Your task to perform on an android device: change notification settings in the gmail app Image 0: 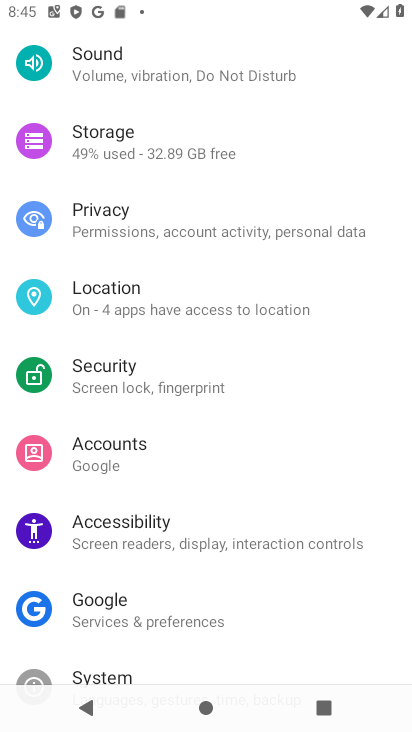
Step 0: press back button
Your task to perform on an android device: change notification settings in the gmail app Image 1: 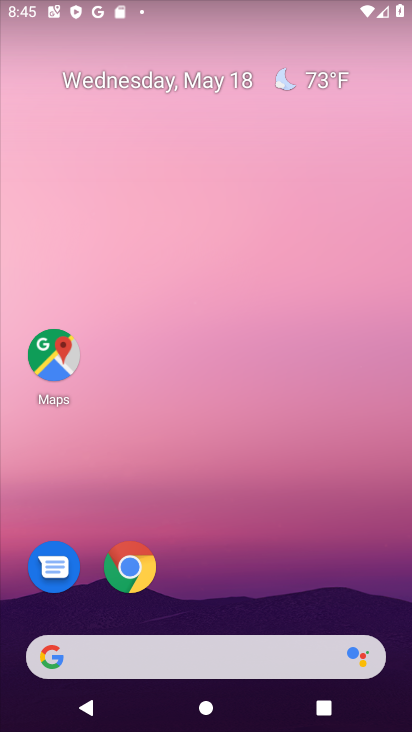
Step 1: drag from (220, 542) to (221, 13)
Your task to perform on an android device: change notification settings in the gmail app Image 2: 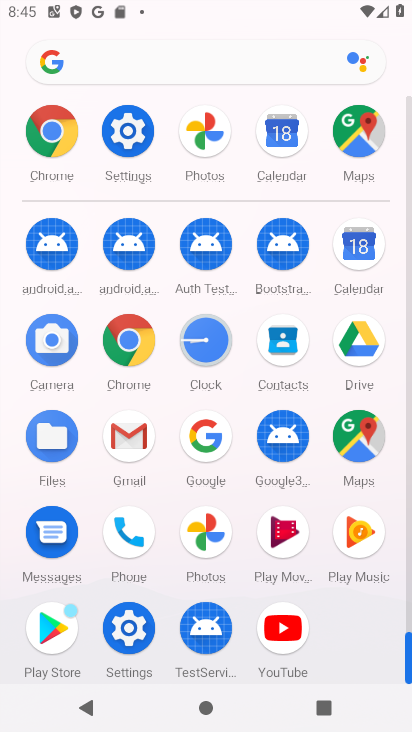
Step 2: drag from (5, 536) to (8, 311)
Your task to perform on an android device: change notification settings in the gmail app Image 3: 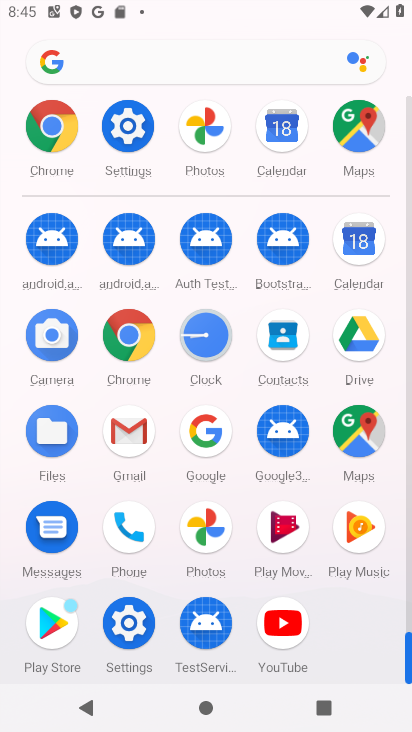
Step 3: click (132, 426)
Your task to perform on an android device: change notification settings in the gmail app Image 4: 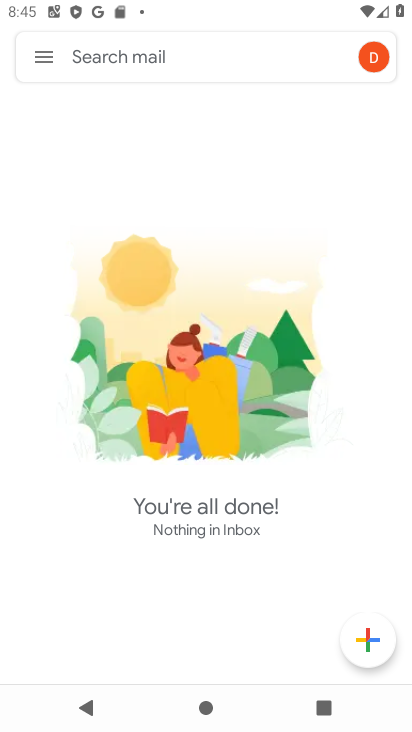
Step 4: click (56, 50)
Your task to perform on an android device: change notification settings in the gmail app Image 5: 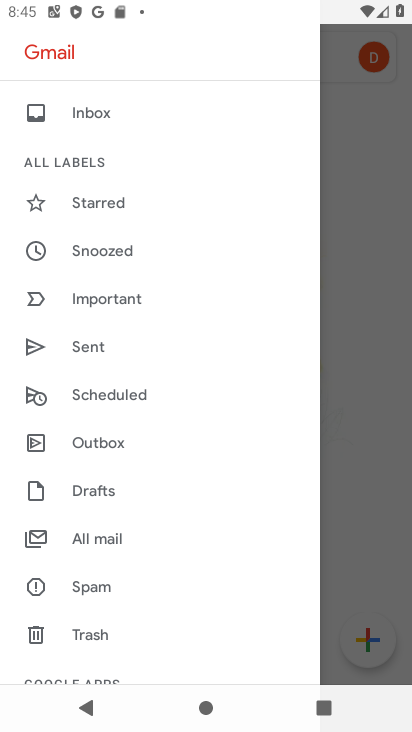
Step 5: drag from (168, 573) to (157, 68)
Your task to perform on an android device: change notification settings in the gmail app Image 6: 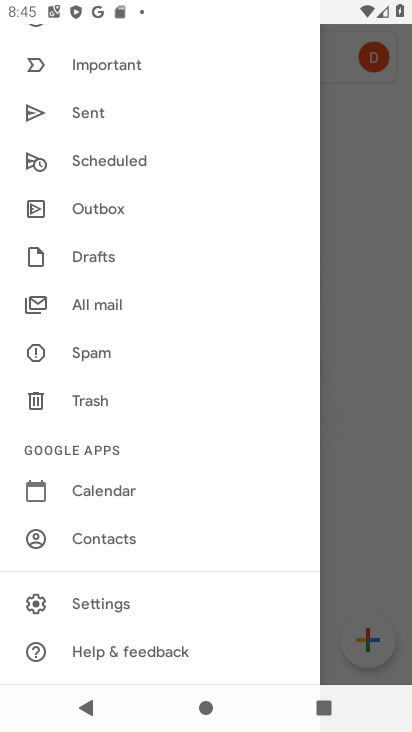
Step 6: click (81, 600)
Your task to perform on an android device: change notification settings in the gmail app Image 7: 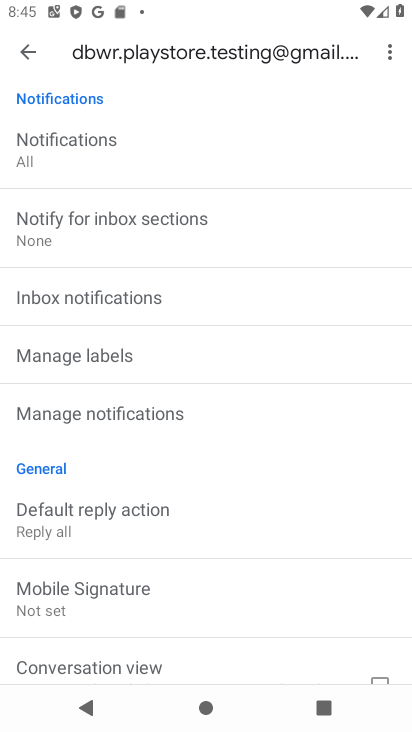
Step 7: click (120, 414)
Your task to perform on an android device: change notification settings in the gmail app Image 8: 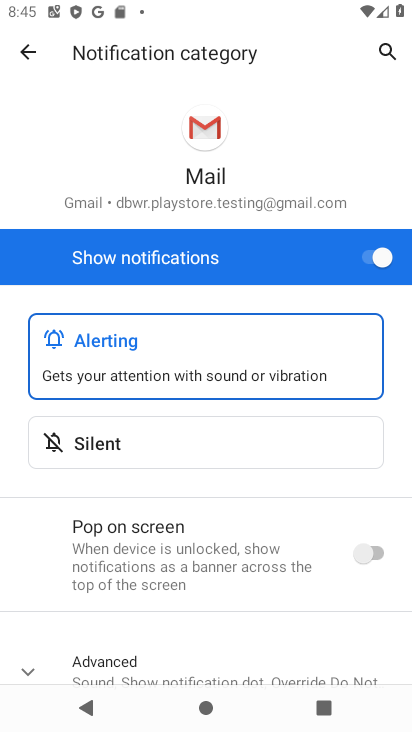
Step 8: click (394, 259)
Your task to perform on an android device: change notification settings in the gmail app Image 9: 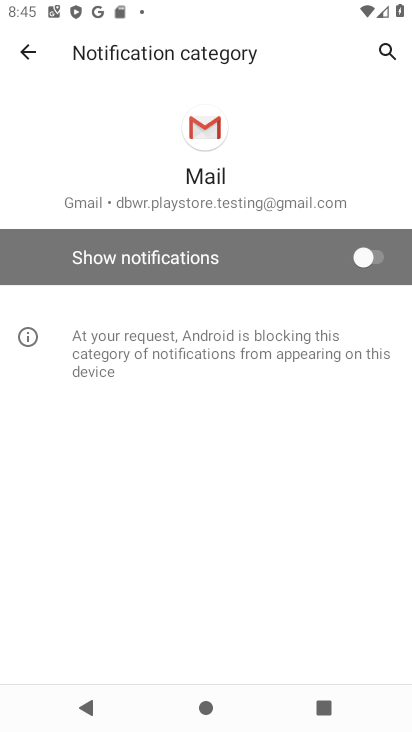
Step 9: task complete